Your task to perform on an android device: turn on wifi Image 0: 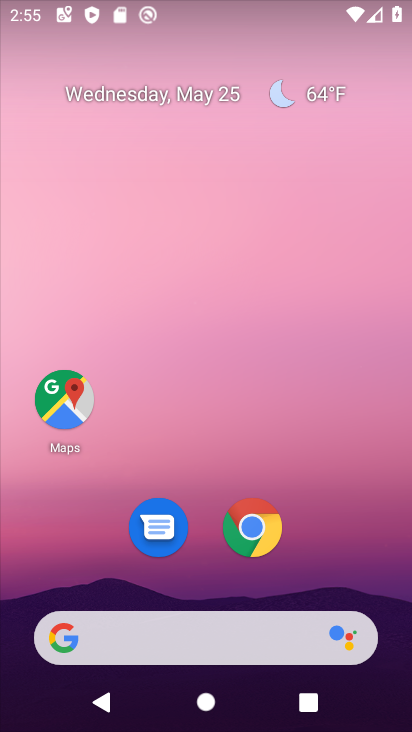
Step 0: drag from (112, 10) to (168, 462)
Your task to perform on an android device: turn on wifi Image 1: 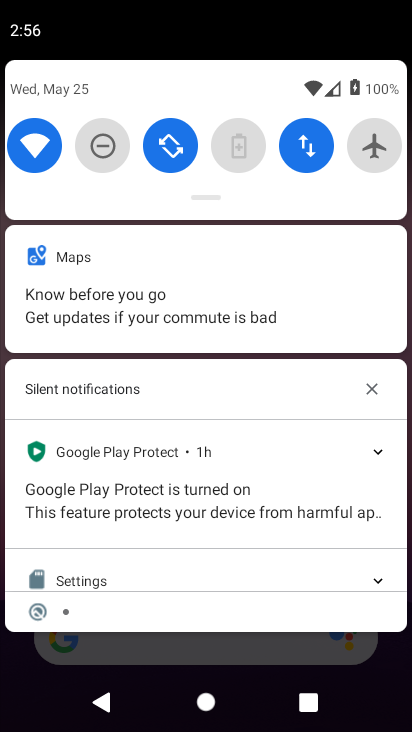
Step 1: task complete